Your task to perform on an android device: Go to display settings Image 0: 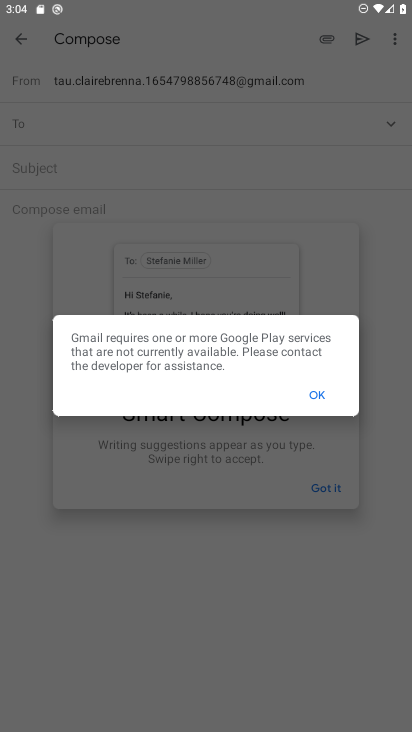
Step 0: press home button
Your task to perform on an android device: Go to display settings Image 1: 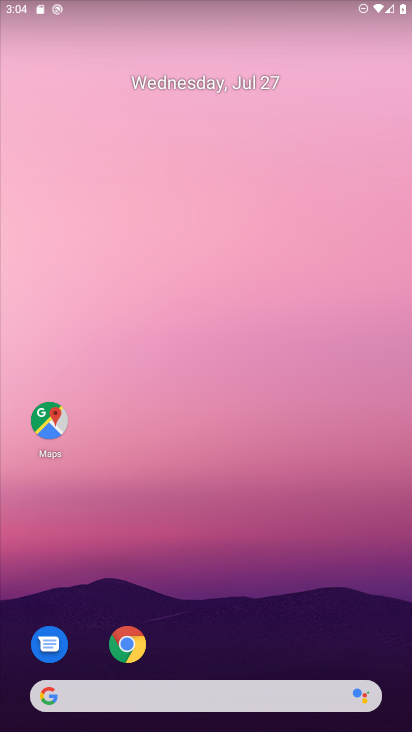
Step 1: drag from (250, 616) to (258, 15)
Your task to perform on an android device: Go to display settings Image 2: 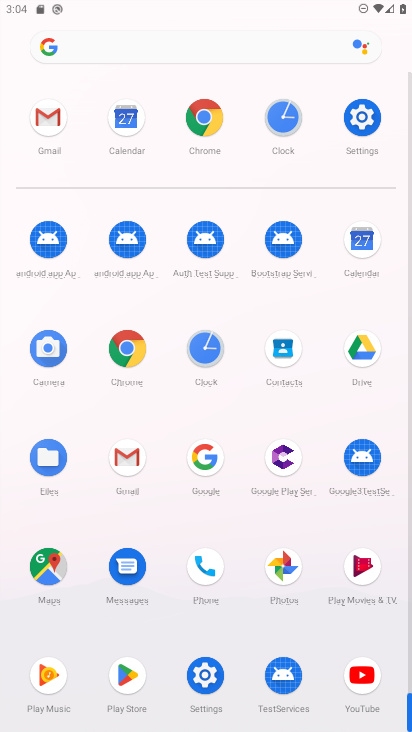
Step 2: click (202, 675)
Your task to perform on an android device: Go to display settings Image 3: 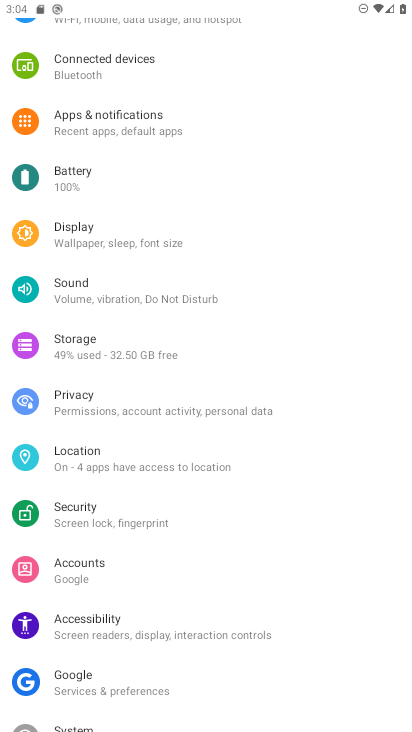
Step 3: click (104, 245)
Your task to perform on an android device: Go to display settings Image 4: 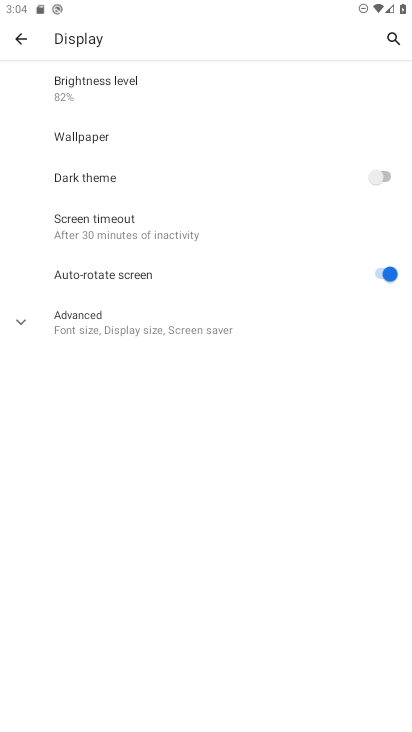
Step 4: task complete